Your task to perform on an android device: Go to Amazon Image 0: 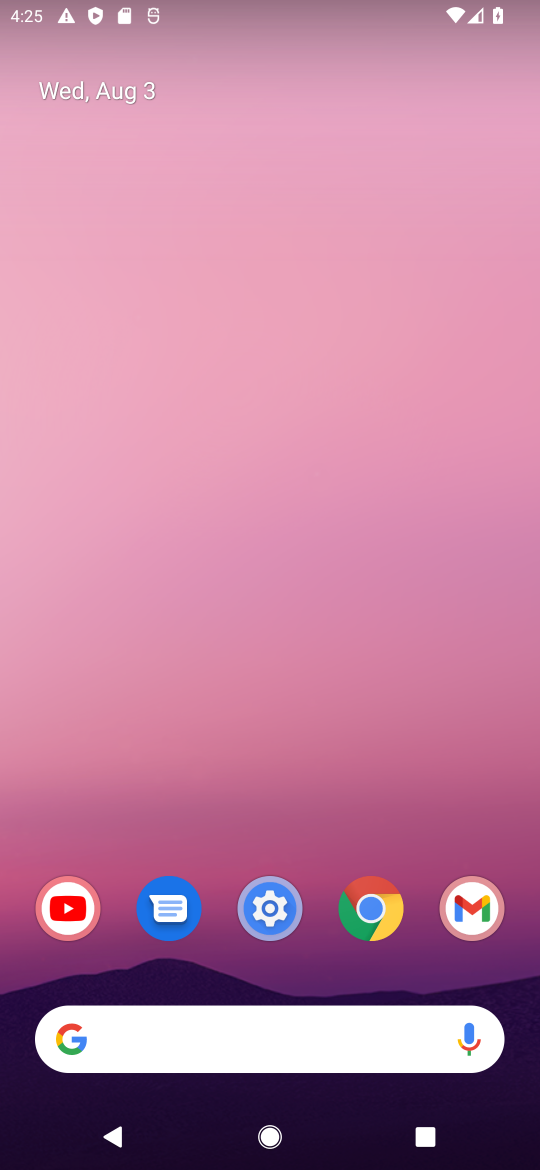
Step 0: click (360, 908)
Your task to perform on an android device: Go to Amazon Image 1: 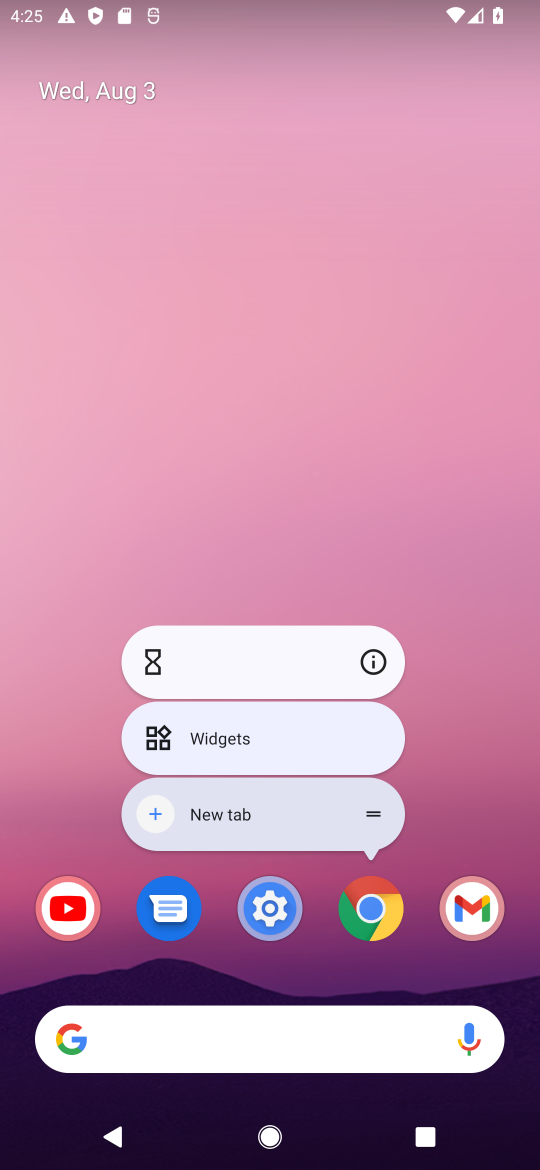
Step 1: click (360, 908)
Your task to perform on an android device: Go to Amazon Image 2: 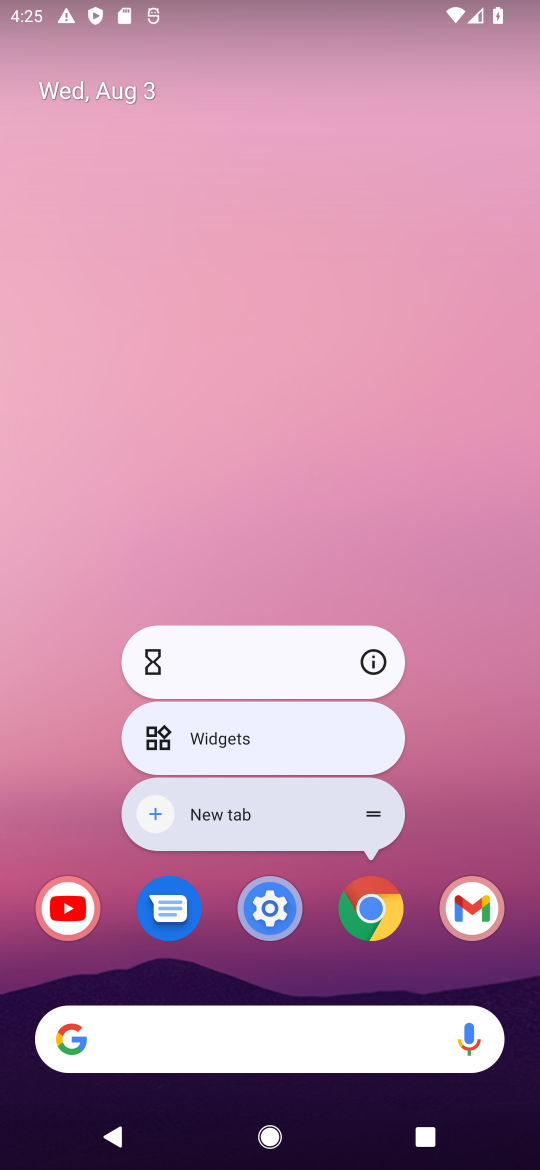
Step 2: click (372, 919)
Your task to perform on an android device: Go to Amazon Image 3: 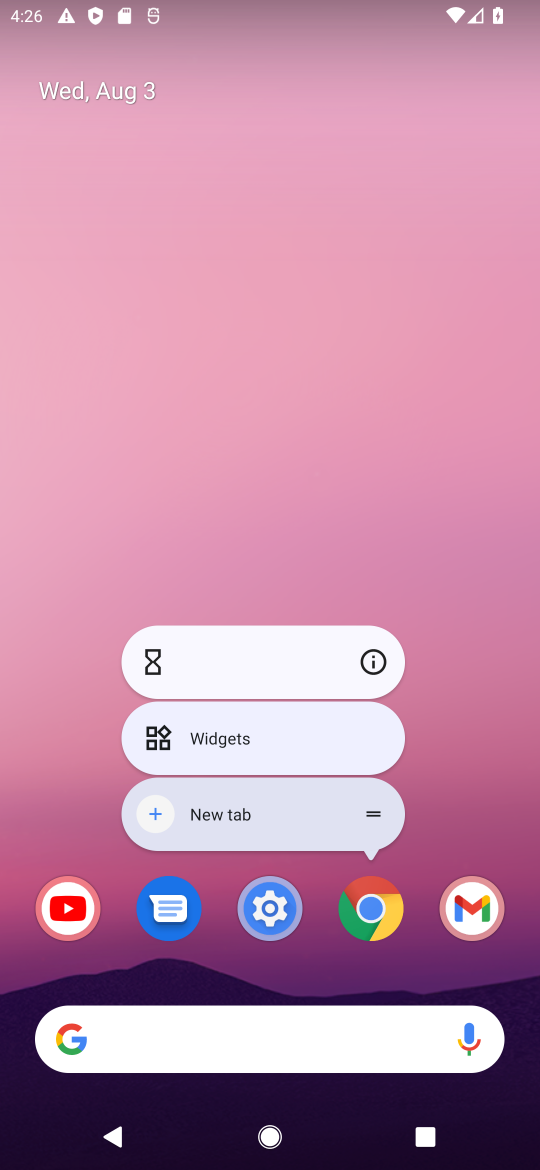
Step 3: click (365, 914)
Your task to perform on an android device: Go to Amazon Image 4: 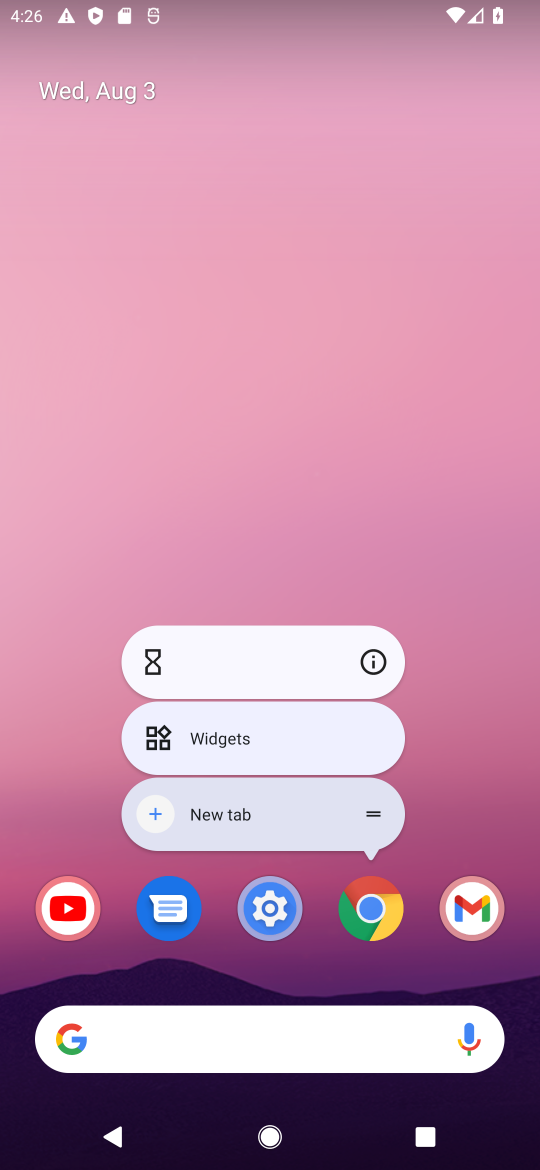
Step 4: click (379, 910)
Your task to perform on an android device: Go to Amazon Image 5: 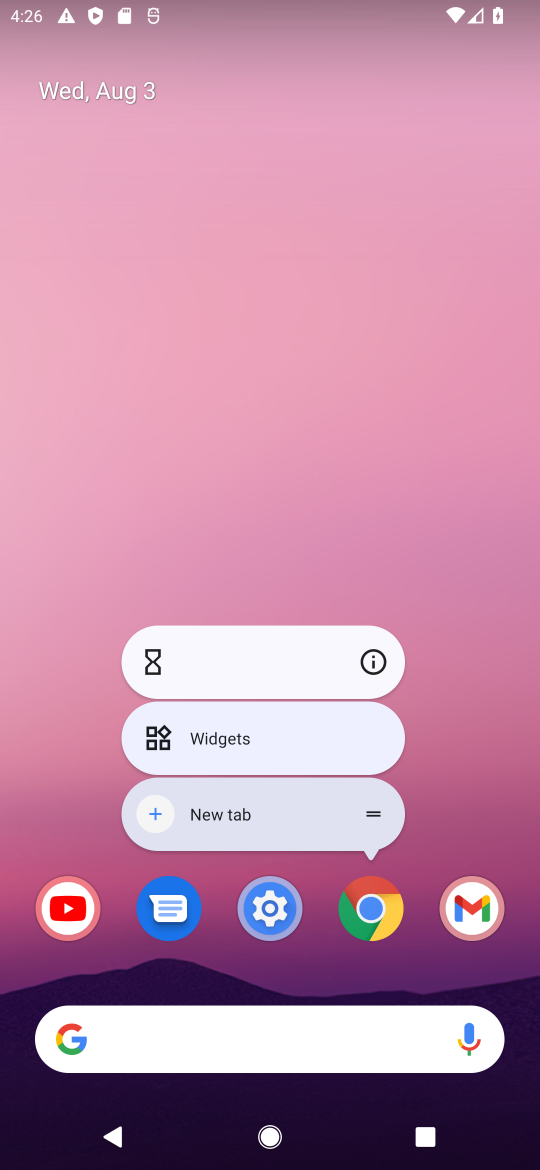
Step 5: click (379, 910)
Your task to perform on an android device: Go to Amazon Image 6: 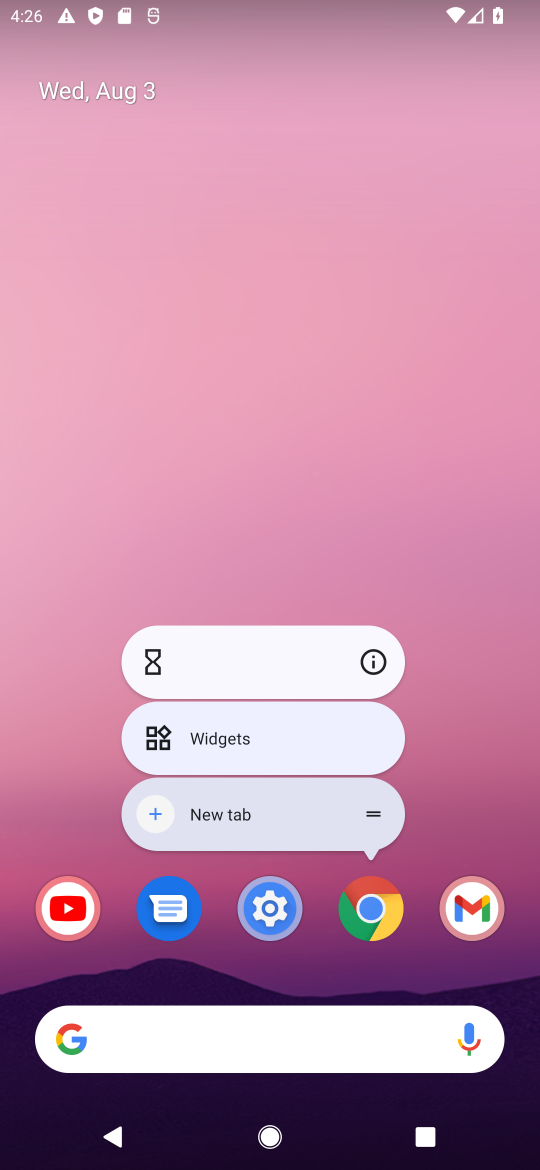
Step 6: click (379, 910)
Your task to perform on an android device: Go to Amazon Image 7: 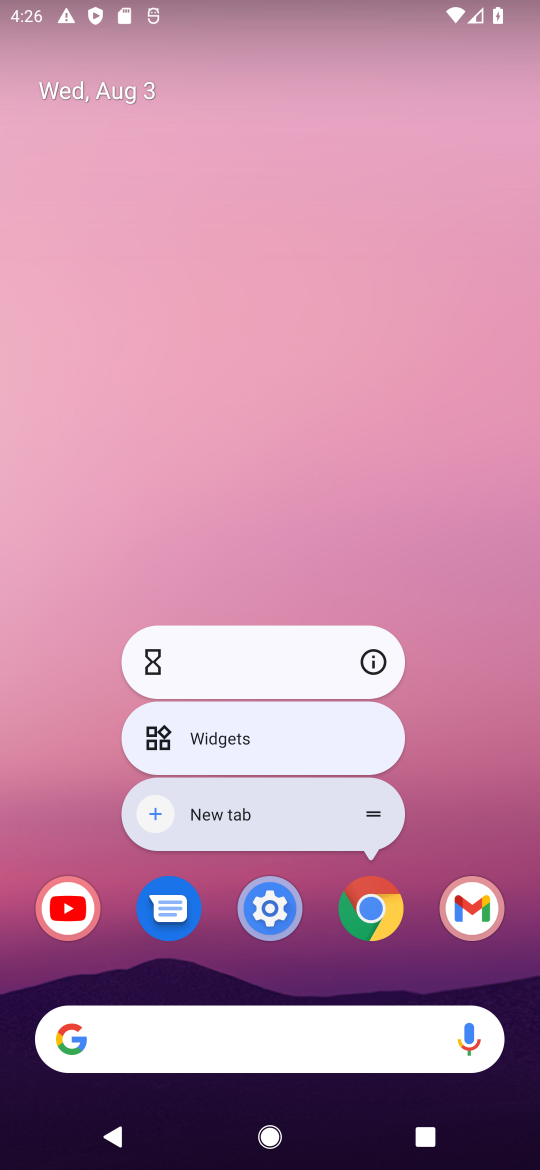
Step 7: click (379, 912)
Your task to perform on an android device: Go to Amazon Image 8: 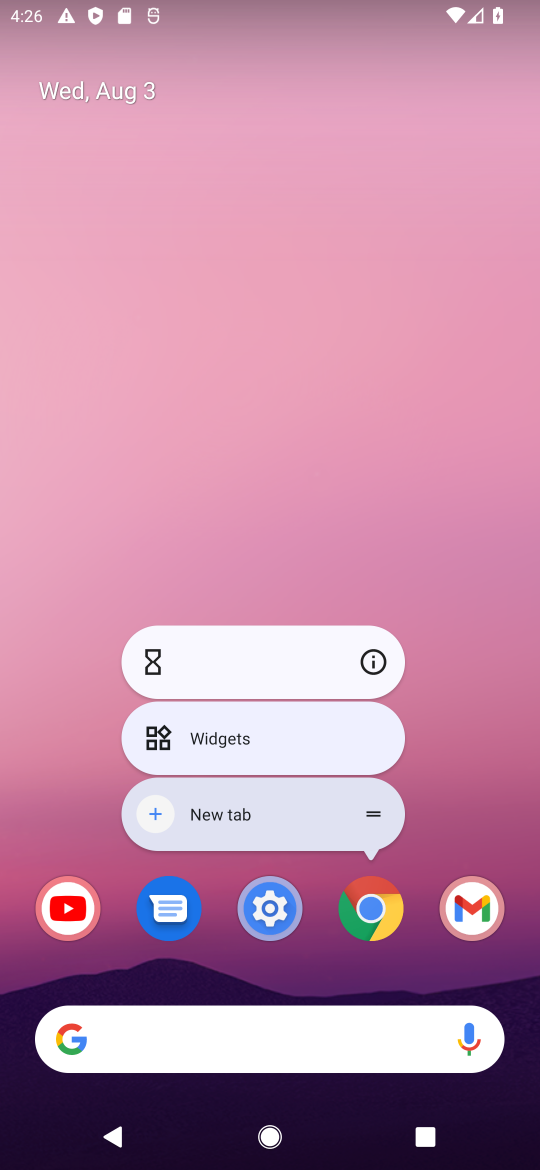
Step 8: click (379, 912)
Your task to perform on an android device: Go to Amazon Image 9: 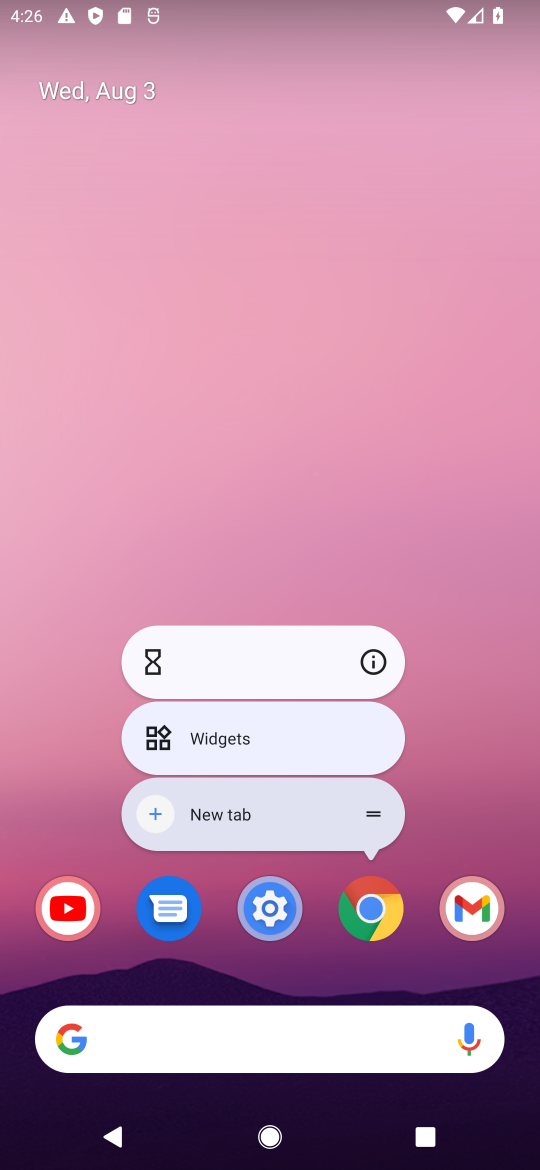
Step 9: click (356, 923)
Your task to perform on an android device: Go to Amazon Image 10: 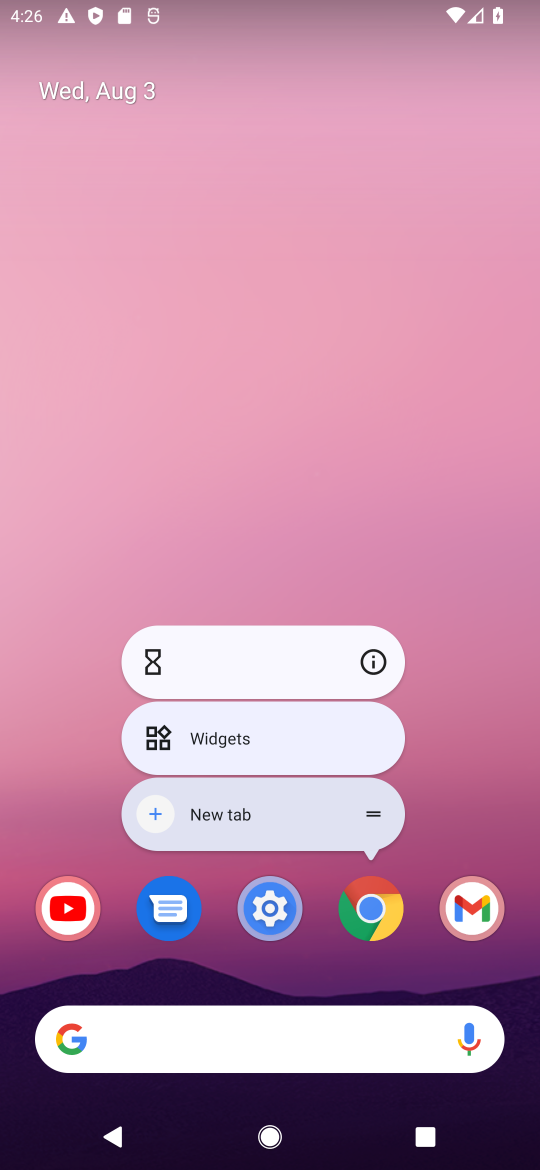
Step 10: click (387, 921)
Your task to perform on an android device: Go to Amazon Image 11: 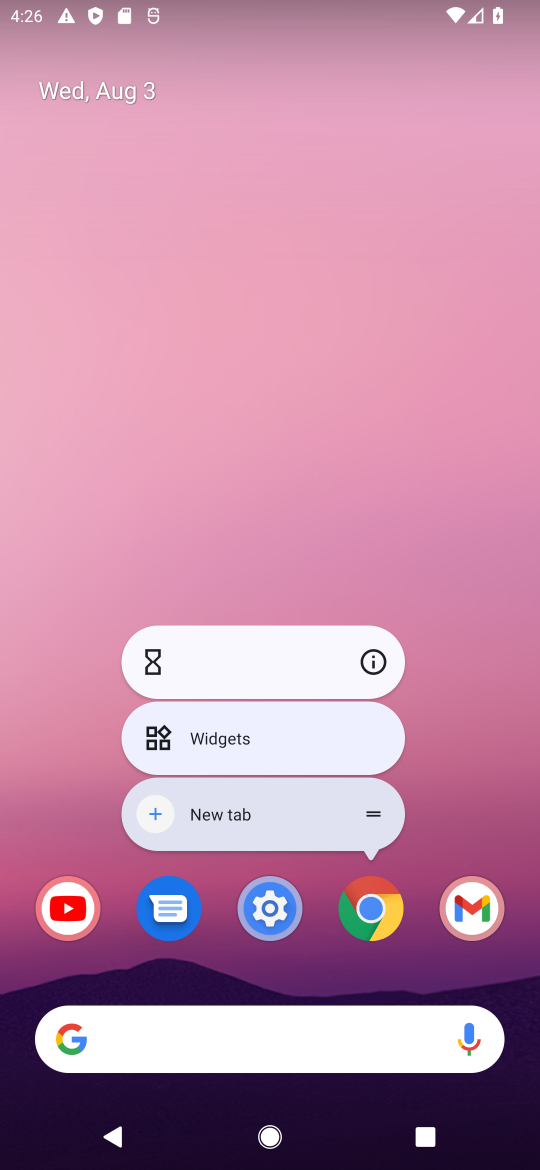
Step 11: click (387, 921)
Your task to perform on an android device: Go to Amazon Image 12: 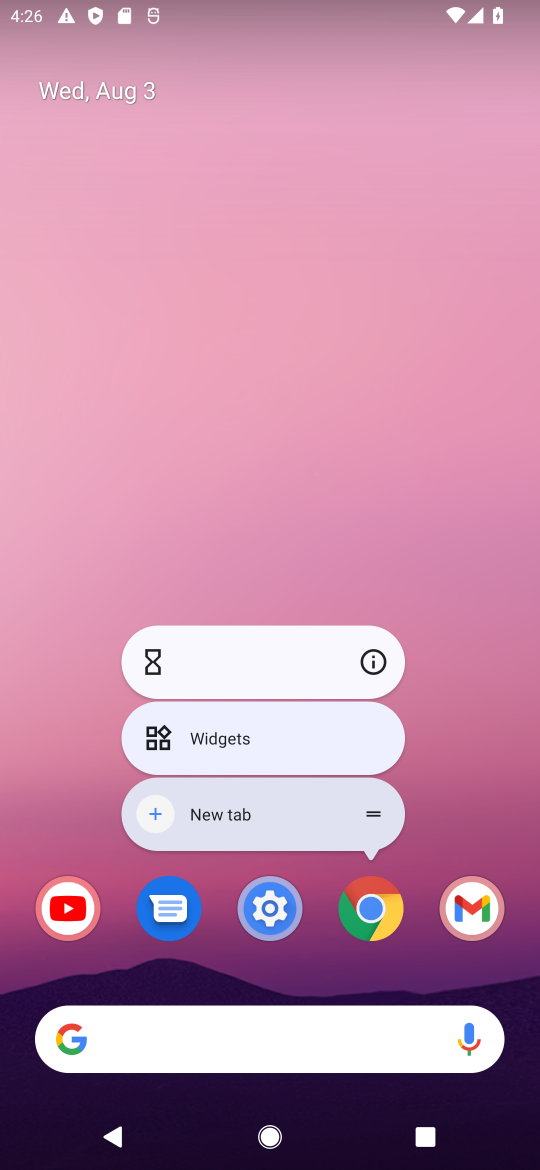
Step 12: click (384, 921)
Your task to perform on an android device: Go to Amazon Image 13: 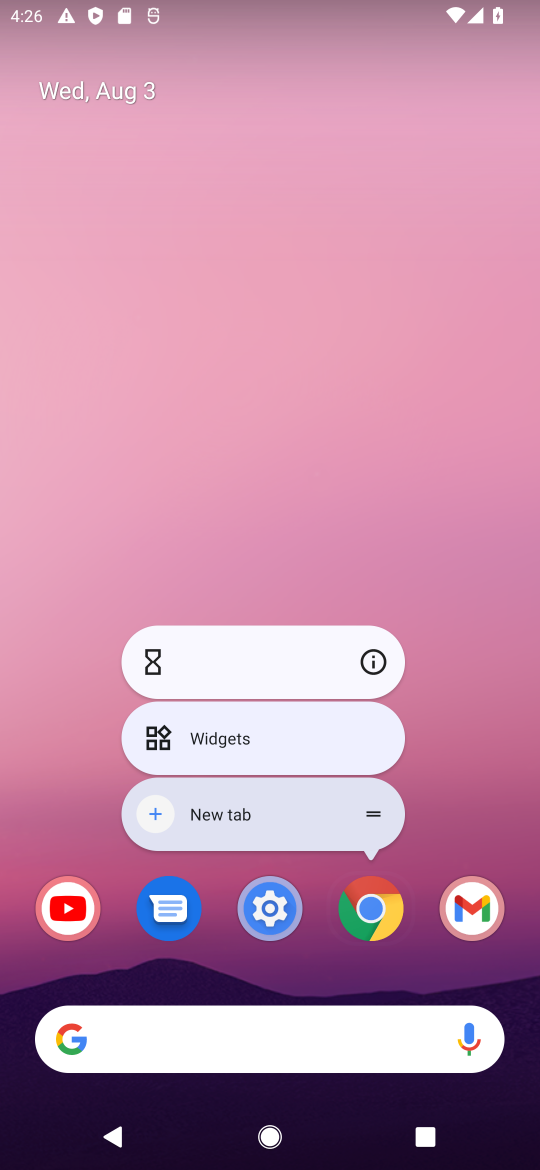
Step 13: click (384, 921)
Your task to perform on an android device: Go to Amazon Image 14: 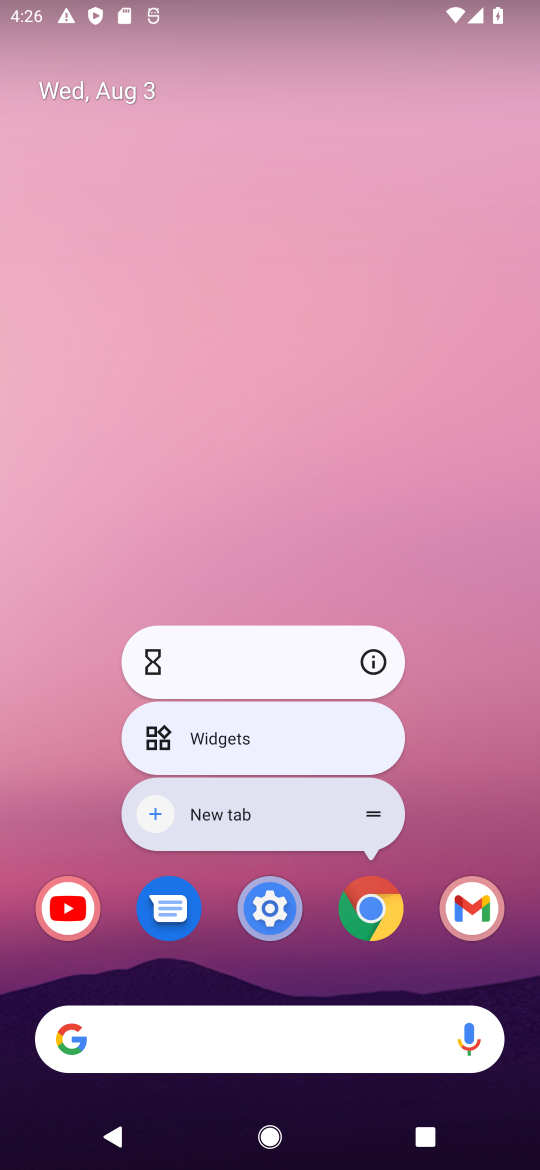
Step 14: click (382, 921)
Your task to perform on an android device: Go to Amazon Image 15: 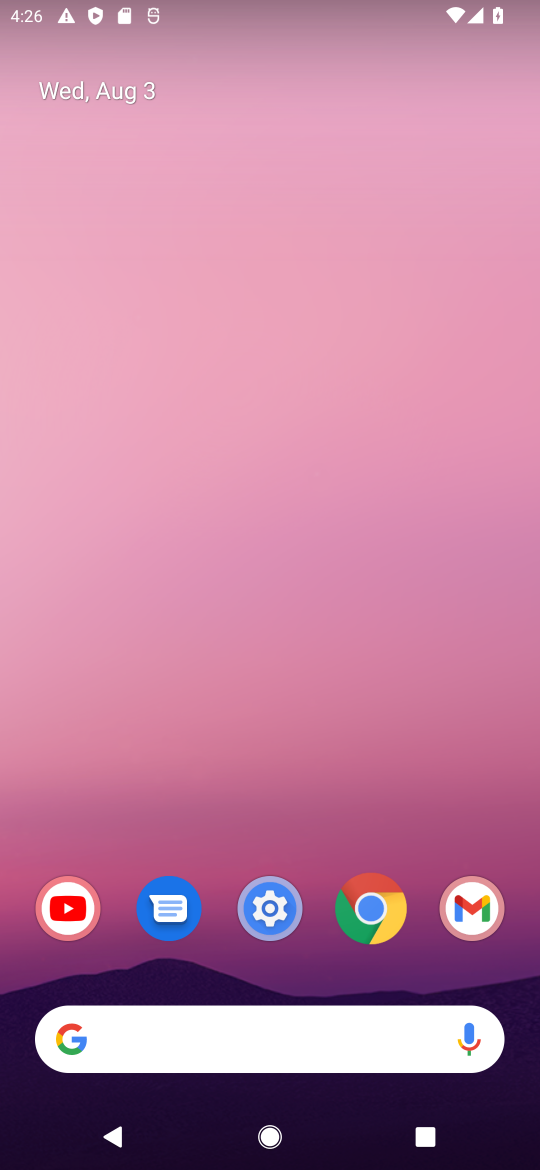
Step 15: click (382, 921)
Your task to perform on an android device: Go to Amazon Image 16: 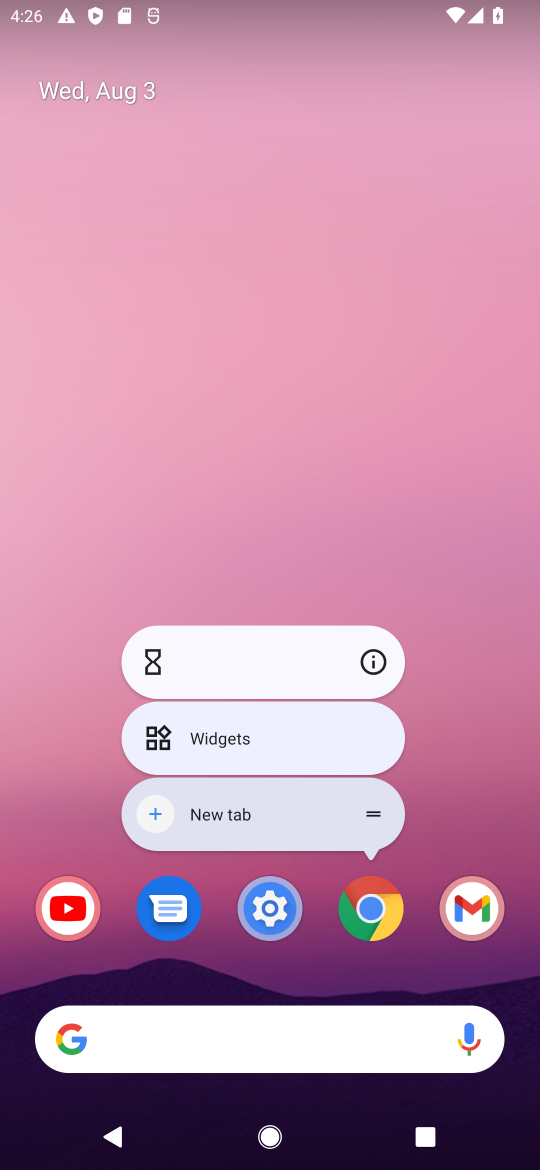
Step 16: click (398, 920)
Your task to perform on an android device: Go to Amazon Image 17: 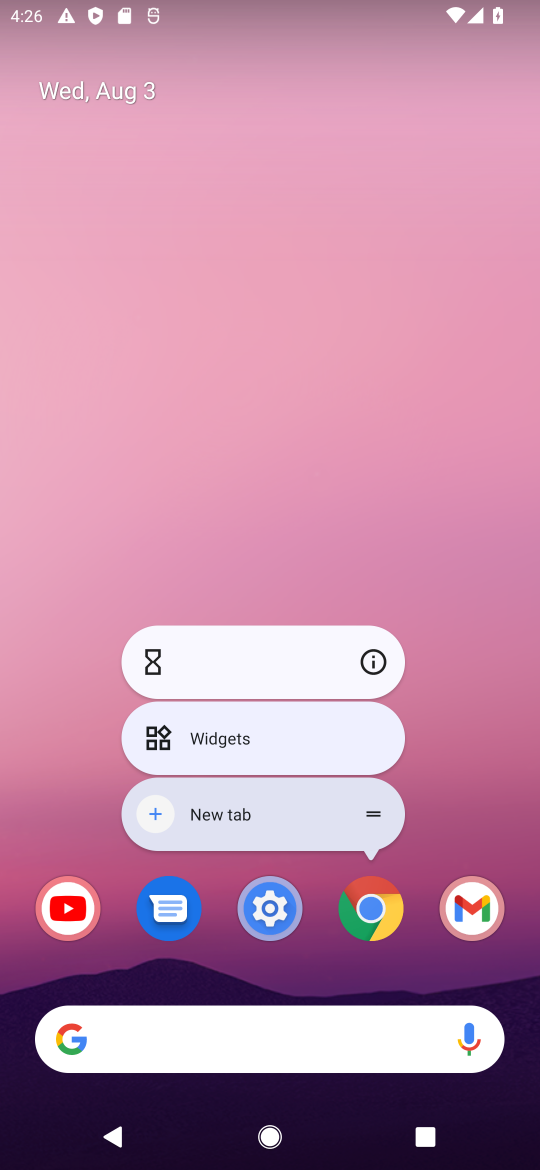
Step 17: click (388, 915)
Your task to perform on an android device: Go to Amazon Image 18: 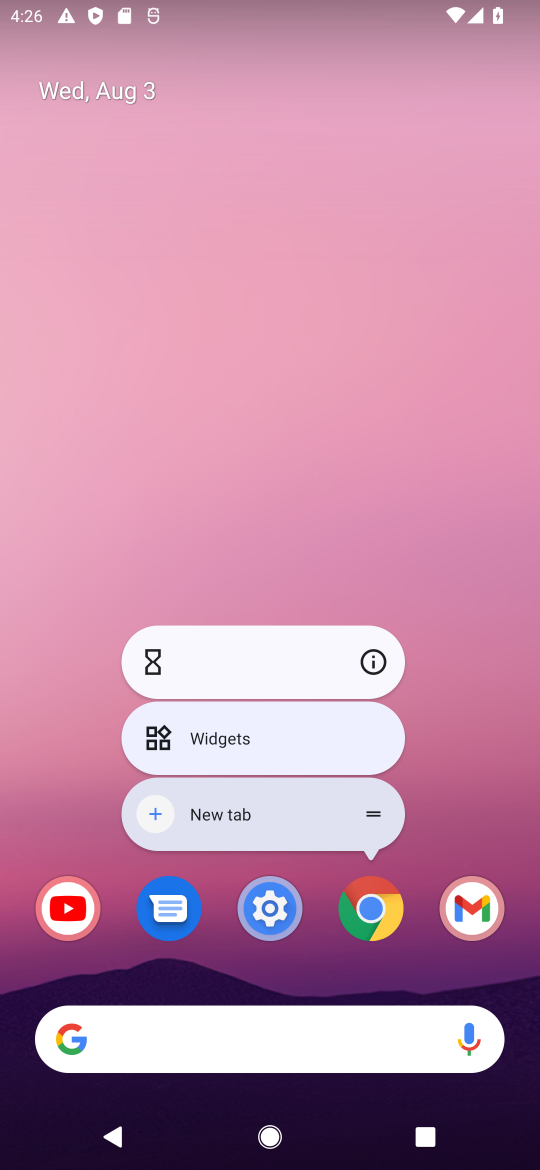
Step 18: click (390, 905)
Your task to perform on an android device: Go to Amazon Image 19: 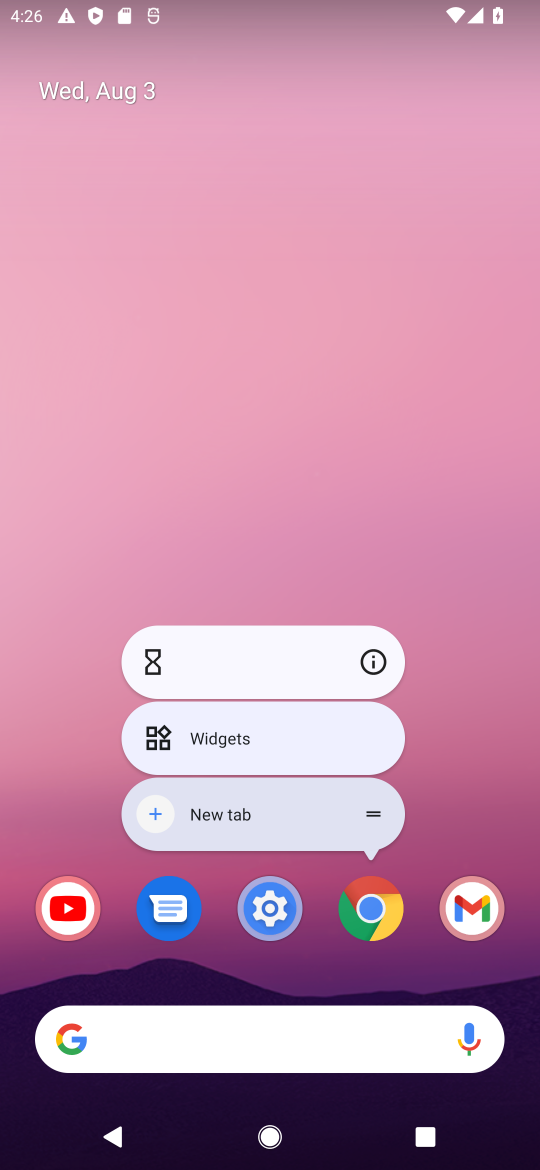
Step 19: click (371, 928)
Your task to perform on an android device: Go to Amazon Image 20: 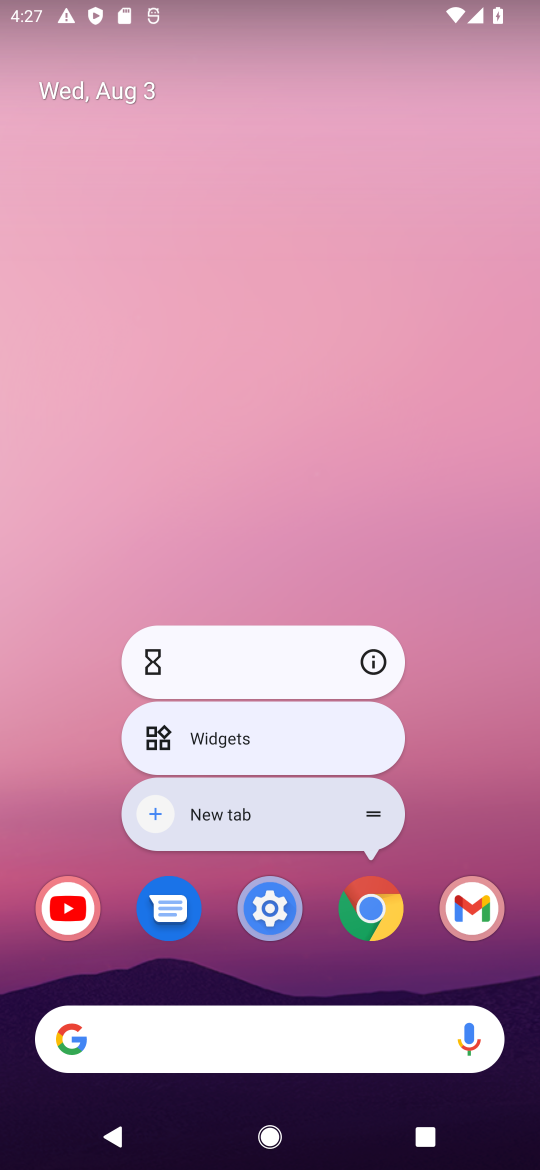
Step 20: click (376, 906)
Your task to perform on an android device: Go to Amazon Image 21: 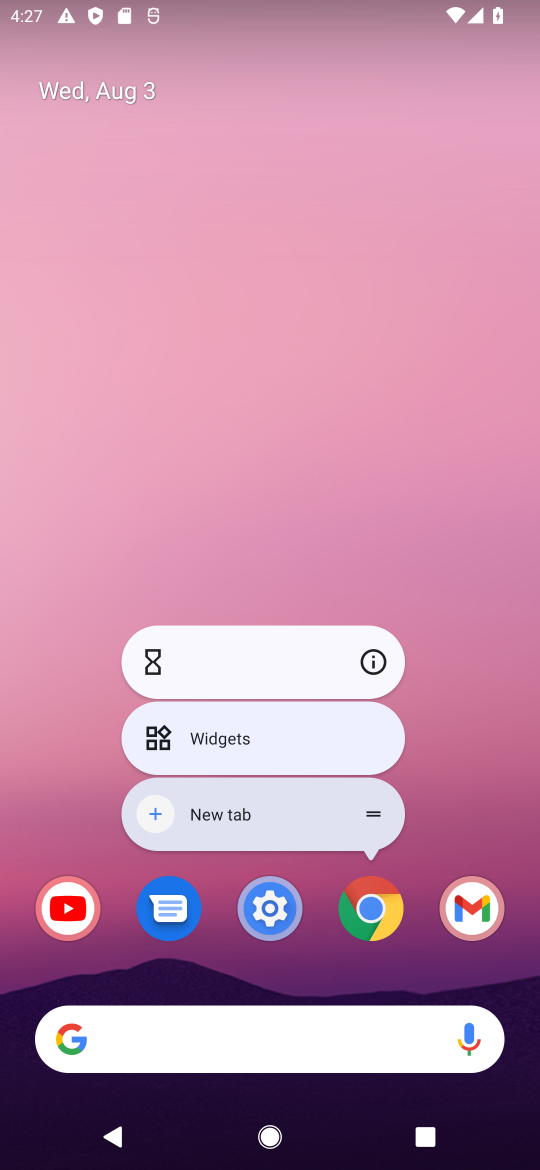
Step 21: click (376, 906)
Your task to perform on an android device: Go to Amazon Image 22: 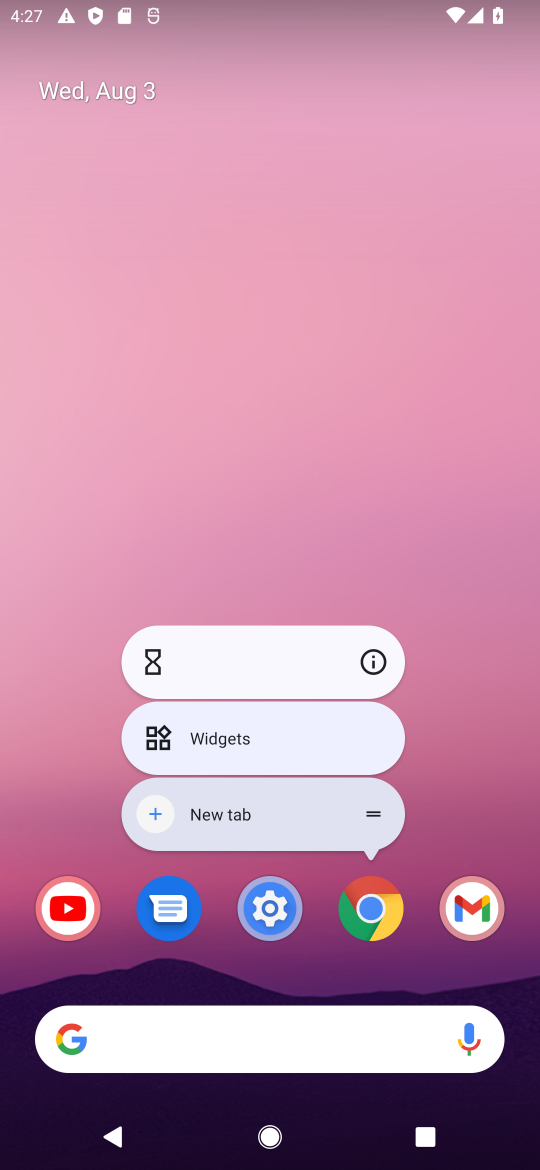
Step 22: click (369, 921)
Your task to perform on an android device: Go to Amazon Image 23: 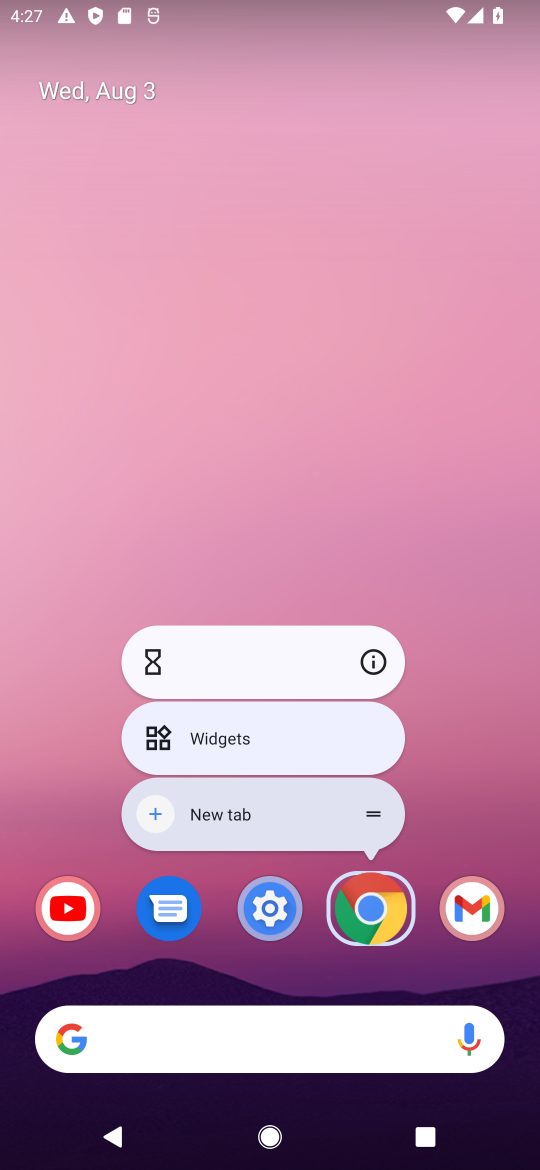
Step 23: click (369, 921)
Your task to perform on an android device: Go to Amazon Image 24: 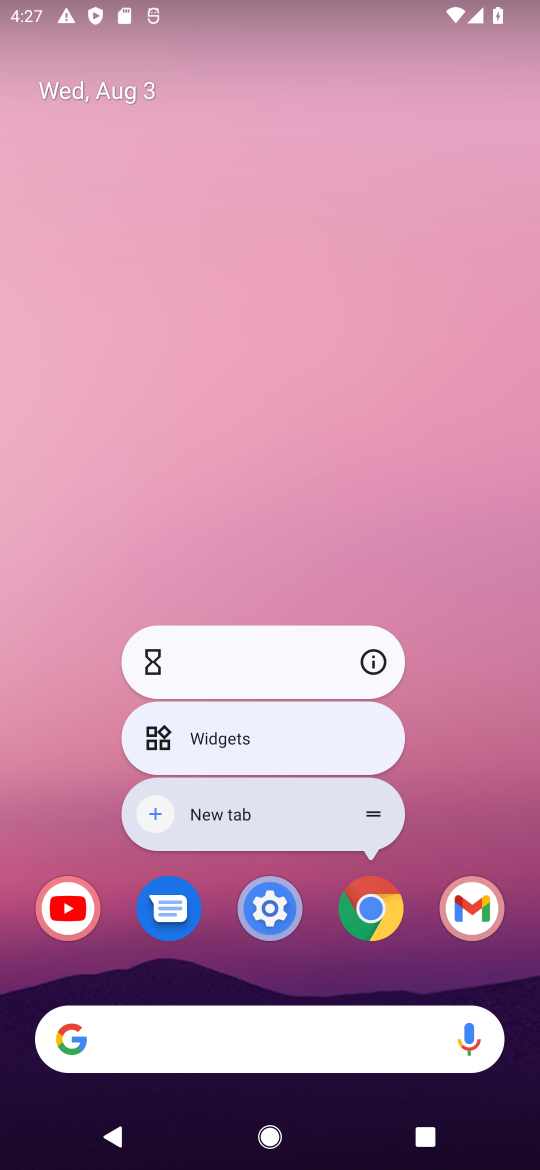
Step 24: click (328, 942)
Your task to perform on an android device: Go to Amazon Image 25: 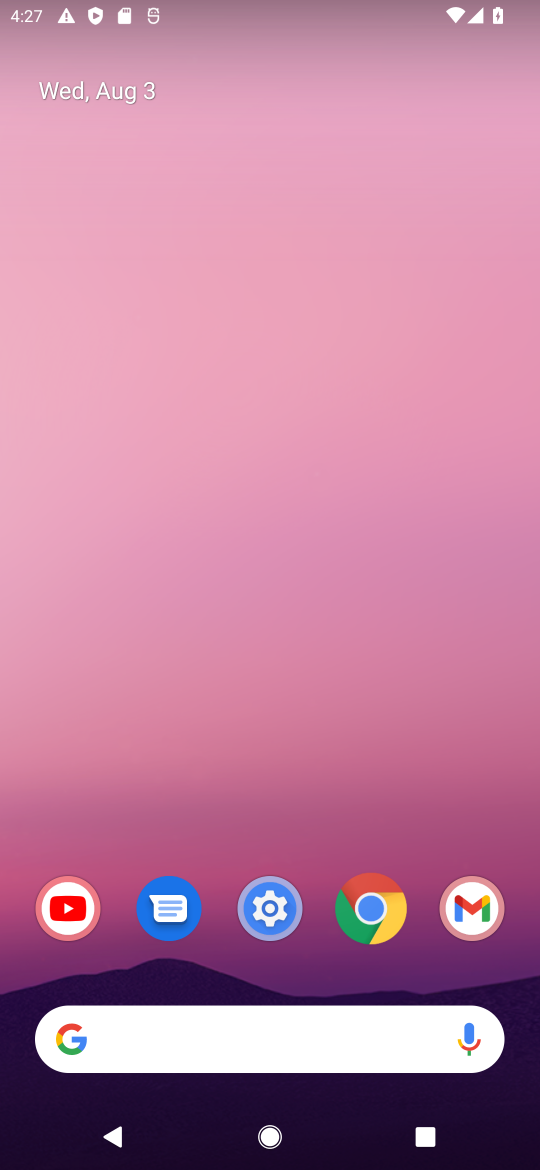
Step 25: click (323, 878)
Your task to perform on an android device: Go to Amazon Image 26: 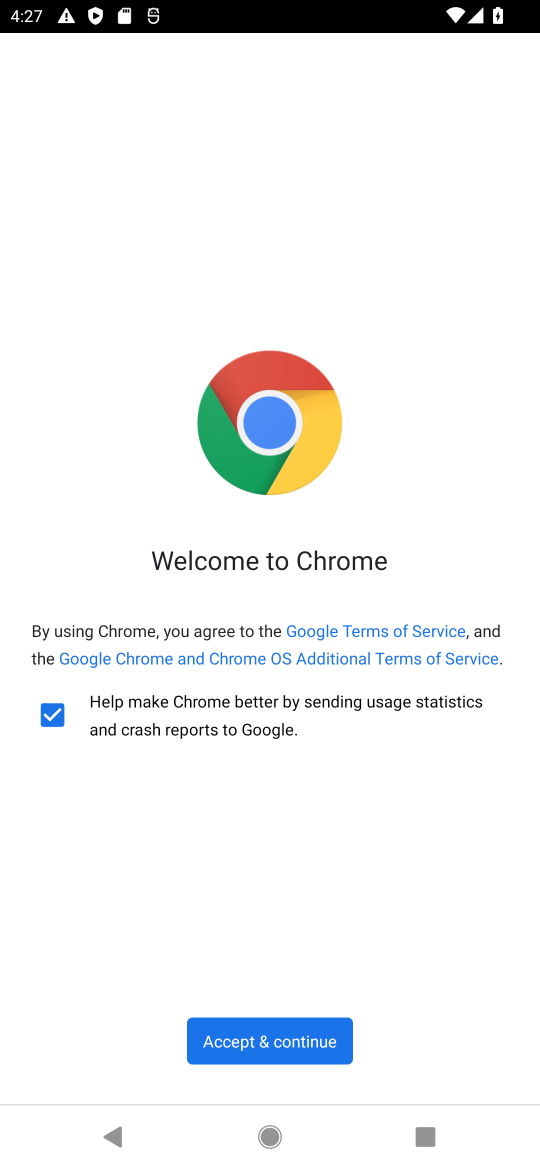
Step 26: click (264, 1042)
Your task to perform on an android device: Go to Amazon Image 27: 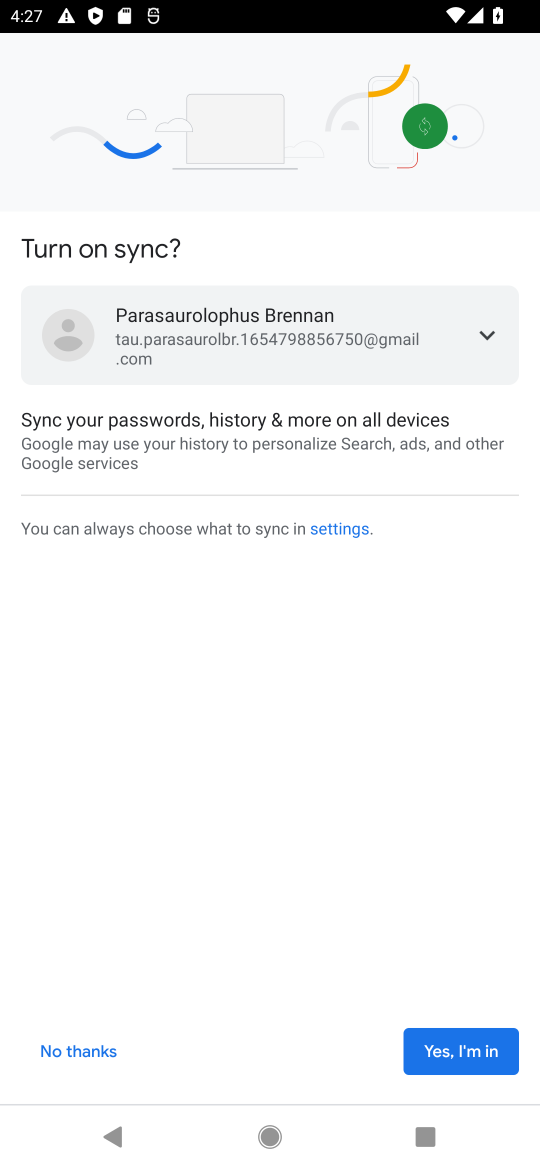
Step 27: click (474, 1046)
Your task to perform on an android device: Go to Amazon Image 28: 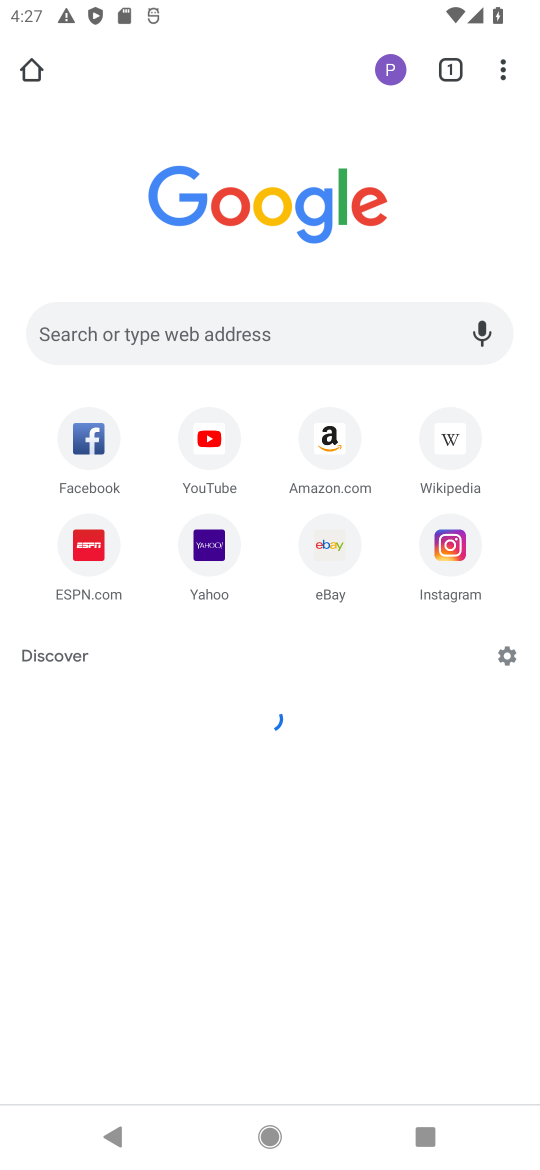
Step 28: click (305, 438)
Your task to perform on an android device: Go to Amazon Image 29: 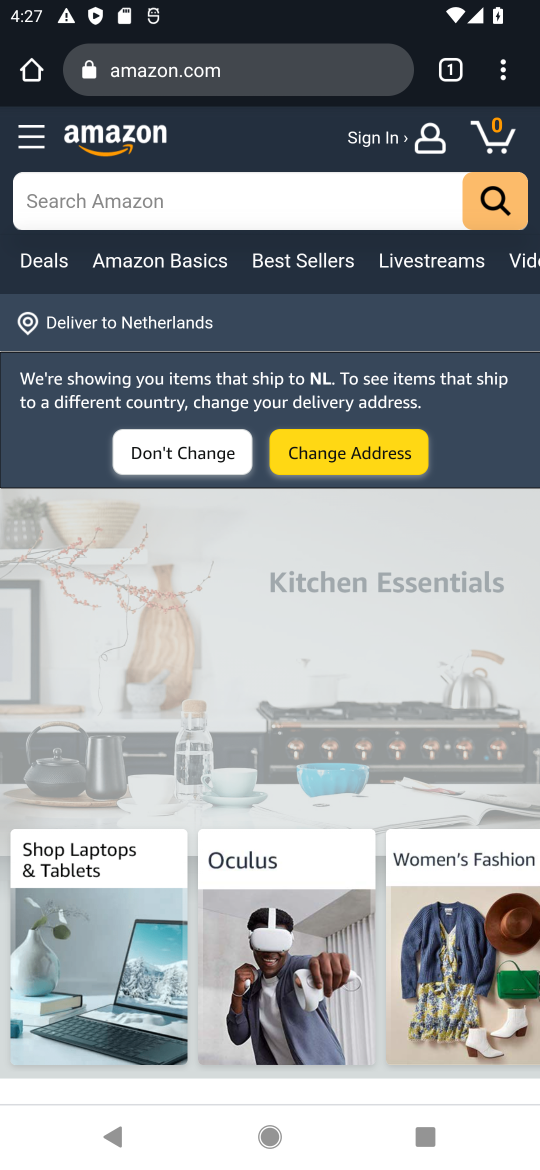
Step 29: click (275, 72)
Your task to perform on an android device: Go to Amazon Image 30: 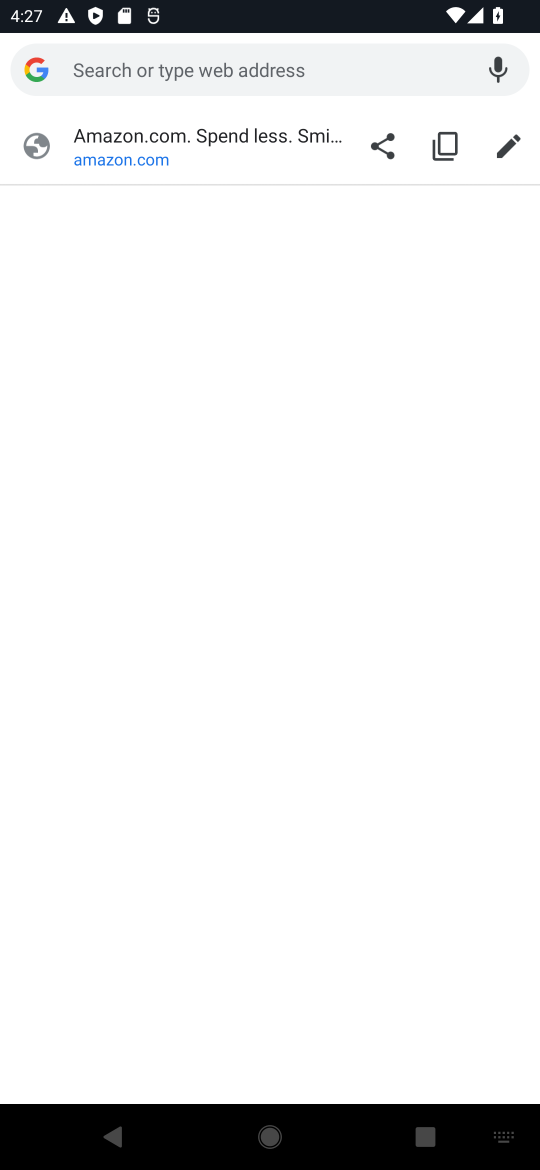
Step 30: click (98, 166)
Your task to perform on an android device: Go to Amazon Image 31: 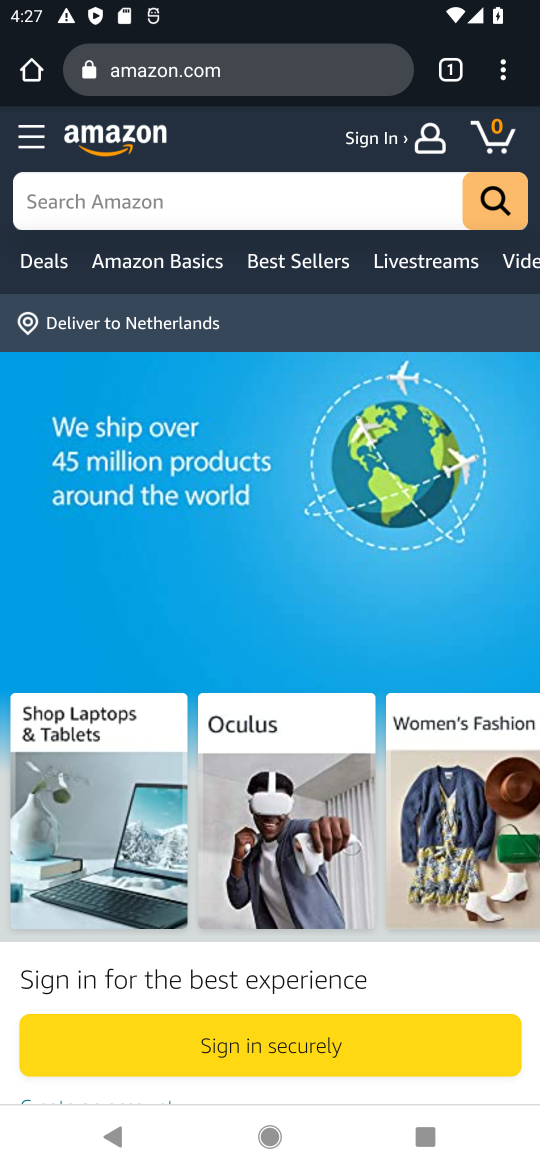
Step 31: task complete